Your task to perform on an android device: turn on bluetooth scan Image 0: 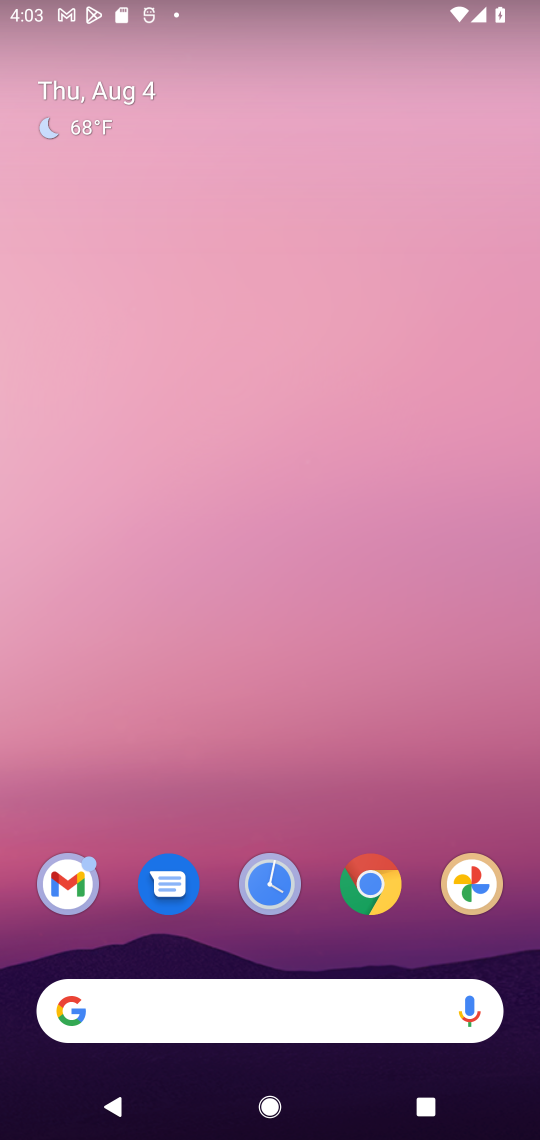
Step 0: drag from (306, 946) to (343, 45)
Your task to perform on an android device: turn on bluetooth scan Image 1: 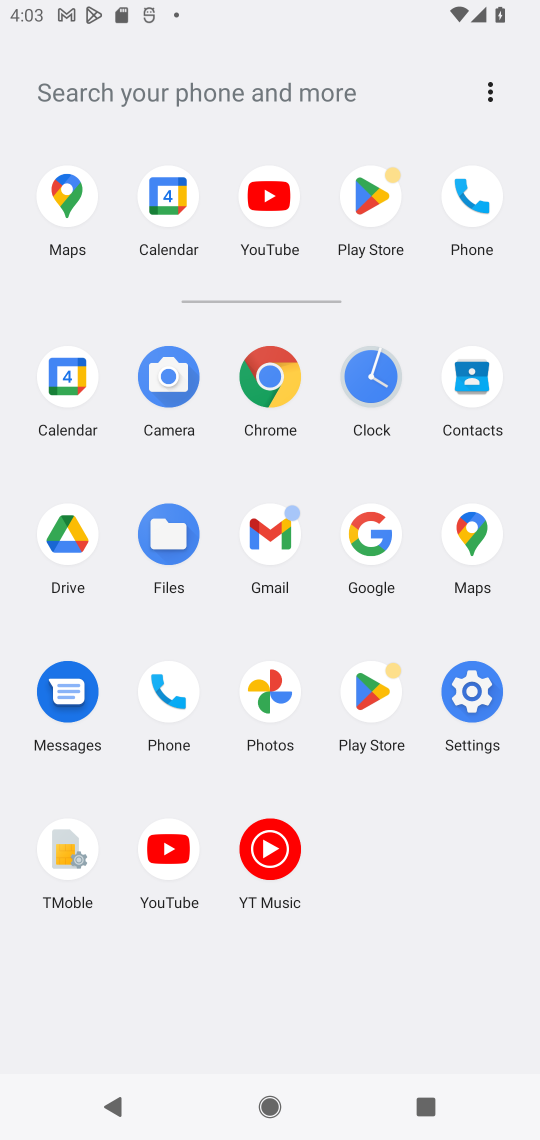
Step 1: click (449, 738)
Your task to perform on an android device: turn on bluetooth scan Image 2: 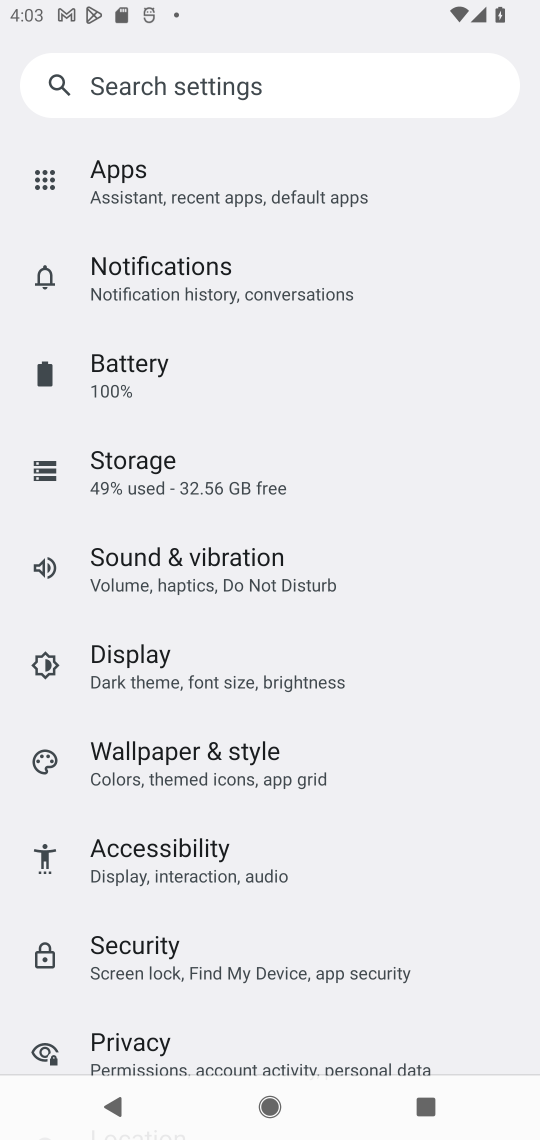
Step 2: task complete